Your task to perform on an android device: Check the weather Image 0: 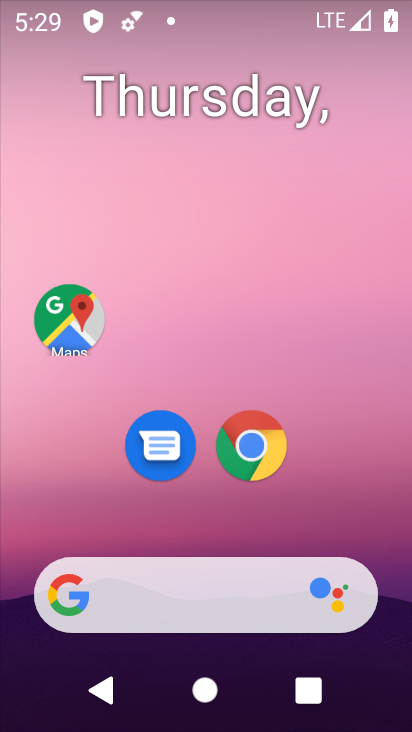
Step 0: drag from (310, 509) to (346, 139)
Your task to perform on an android device: Check the weather Image 1: 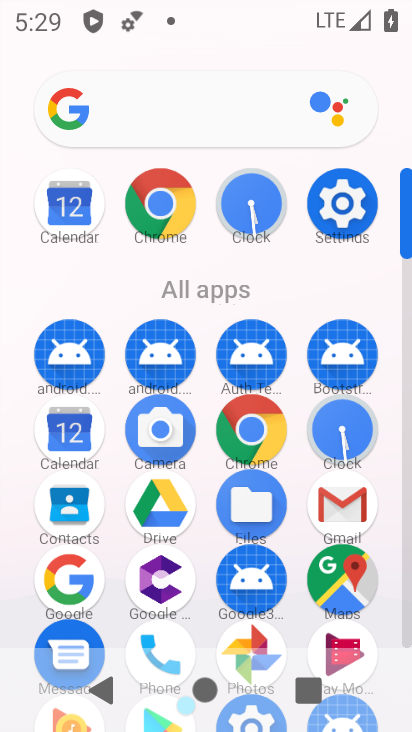
Step 1: click (346, 571)
Your task to perform on an android device: Check the weather Image 2: 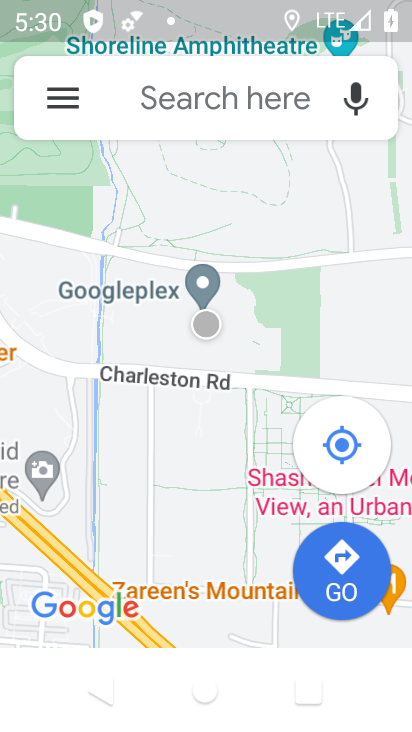
Step 2: click (249, 100)
Your task to perform on an android device: Check the weather Image 3: 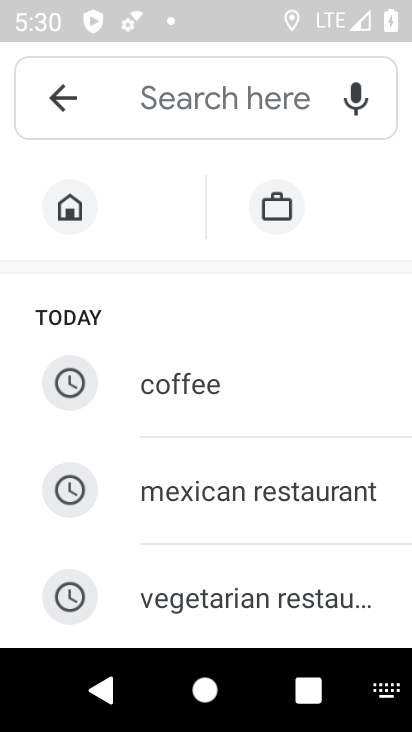
Step 3: type "Check the weather"
Your task to perform on an android device: Check the weather Image 4: 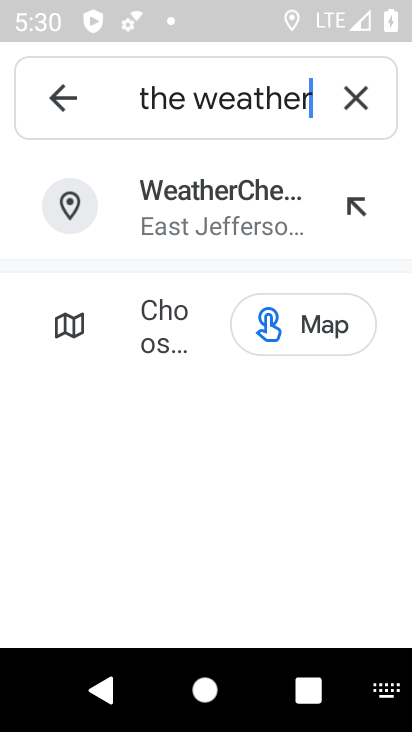
Step 4: press home button
Your task to perform on an android device: Check the weather Image 5: 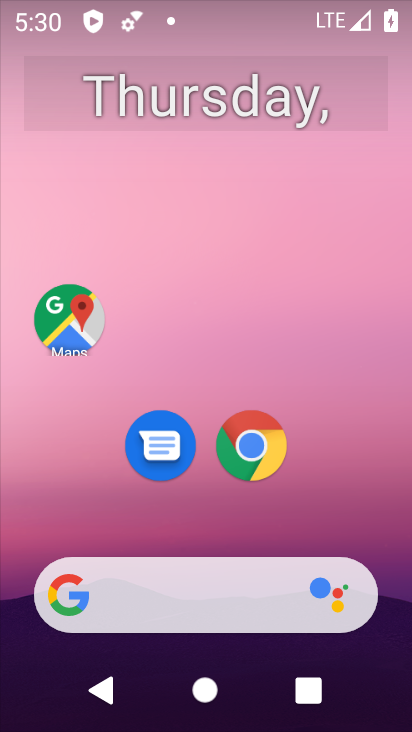
Step 5: click (250, 440)
Your task to perform on an android device: Check the weather Image 6: 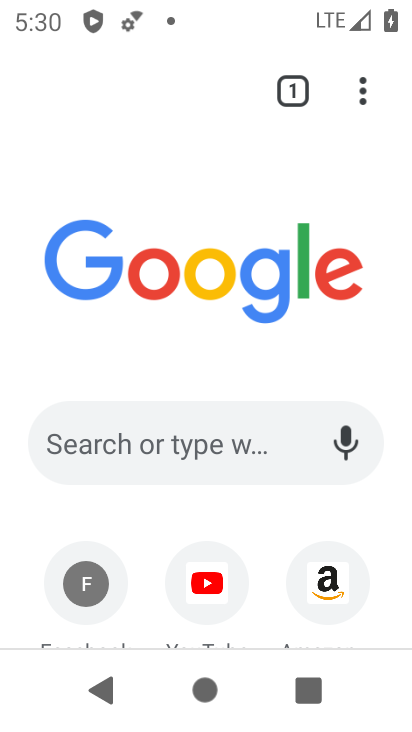
Step 6: click (184, 450)
Your task to perform on an android device: Check the weather Image 7: 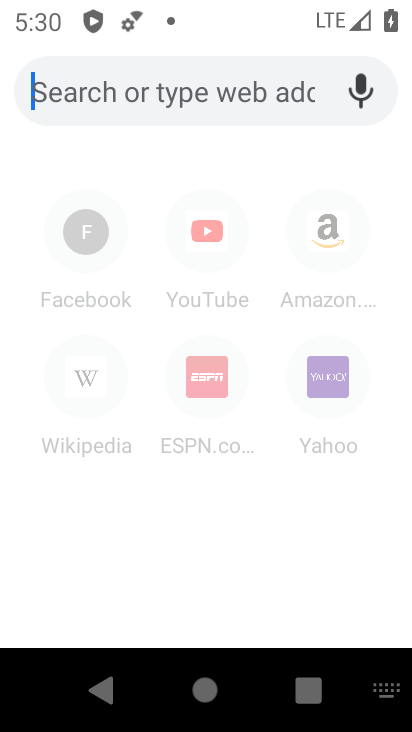
Step 7: type "Check the weather"
Your task to perform on an android device: Check the weather Image 8: 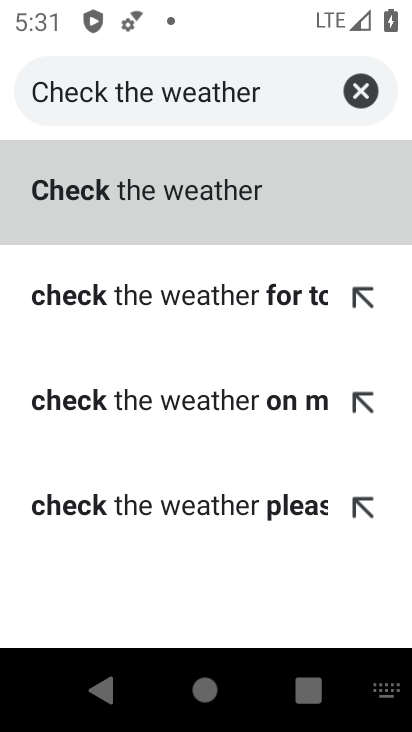
Step 8: click (68, 193)
Your task to perform on an android device: Check the weather Image 9: 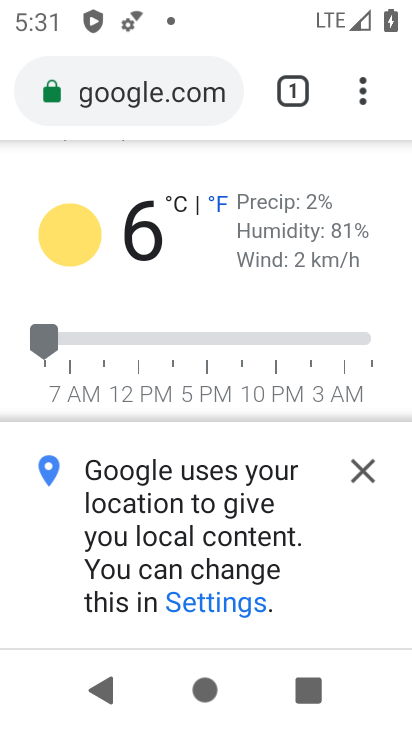
Step 9: task complete